Your task to perform on an android device: Go to settings Image 0: 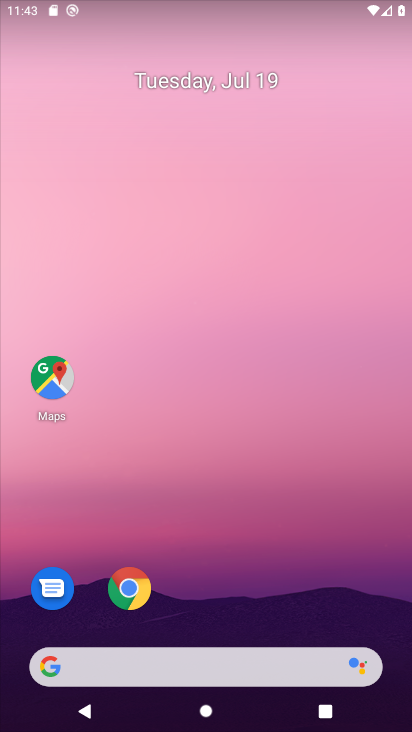
Step 0: drag from (170, 573) to (197, 26)
Your task to perform on an android device: Go to settings Image 1: 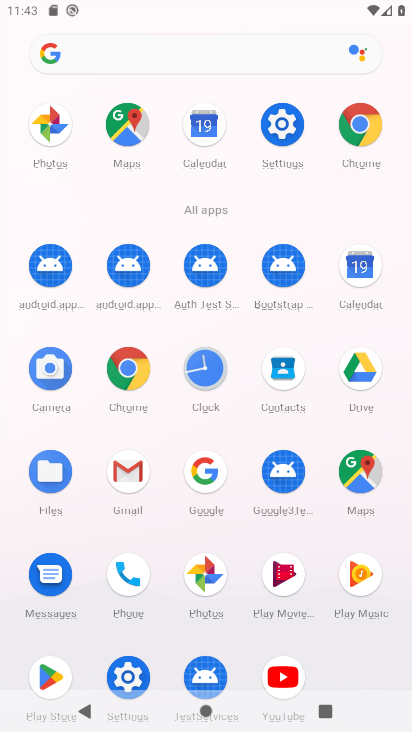
Step 1: click (126, 669)
Your task to perform on an android device: Go to settings Image 2: 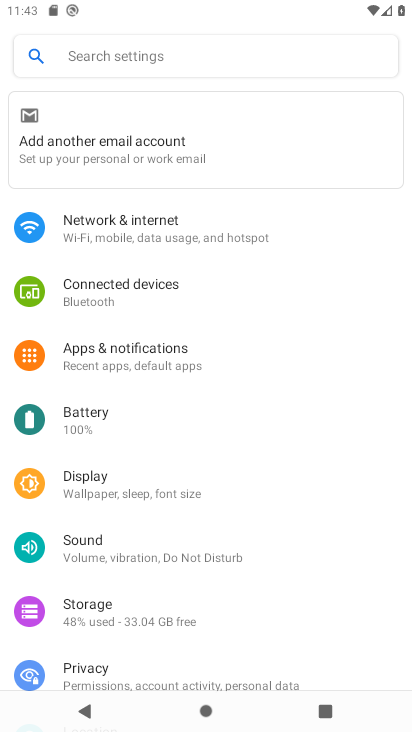
Step 2: task complete